Your task to perform on an android device: Open the map Image 0: 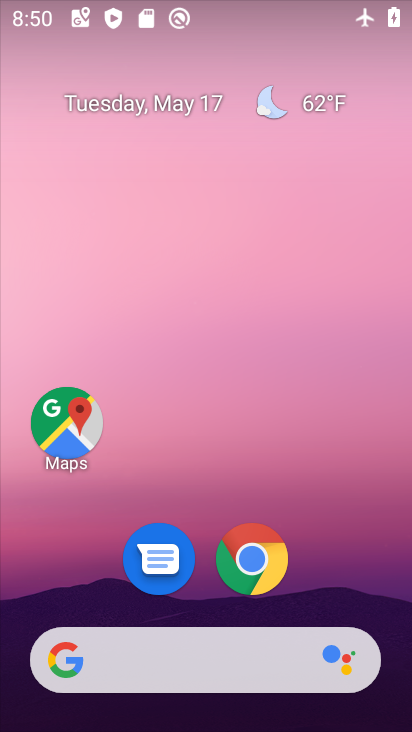
Step 0: click (77, 451)
Your task to perform on an android device: Open the map Image 1: 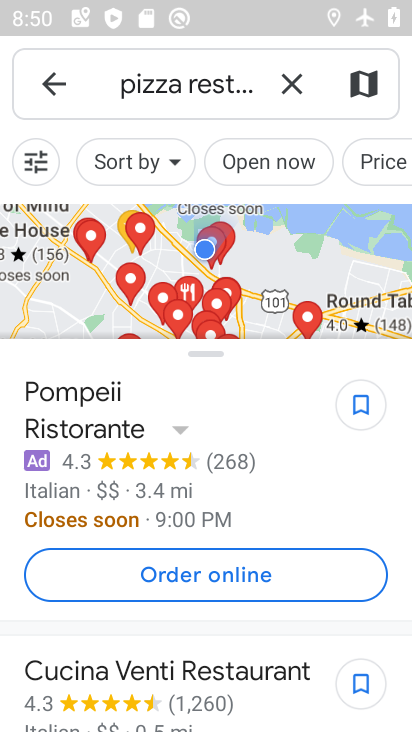
Step 1: task complete